Your task to perform on an android device: Open display settings Image 0: 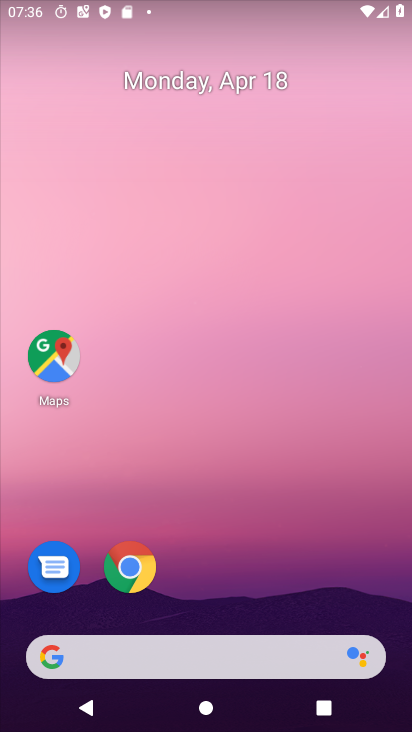
Step 0: drag from (354, 594) to (249, 139)
Your task to perform on an android device: Open display settings Image 1: 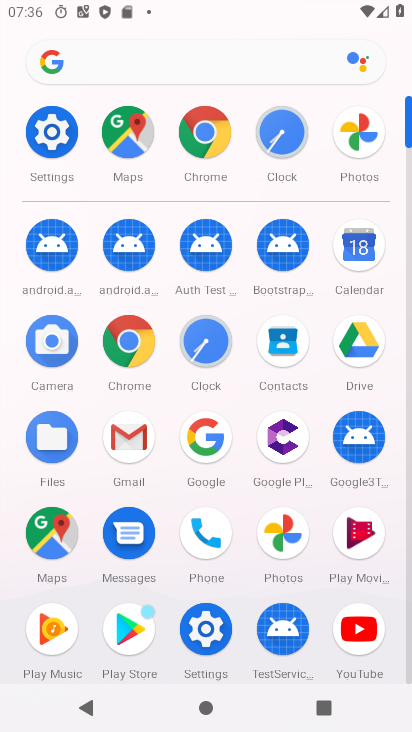
Step 1: click (48, 140)
Your task to perform on an android device: Open display settings Image 2: 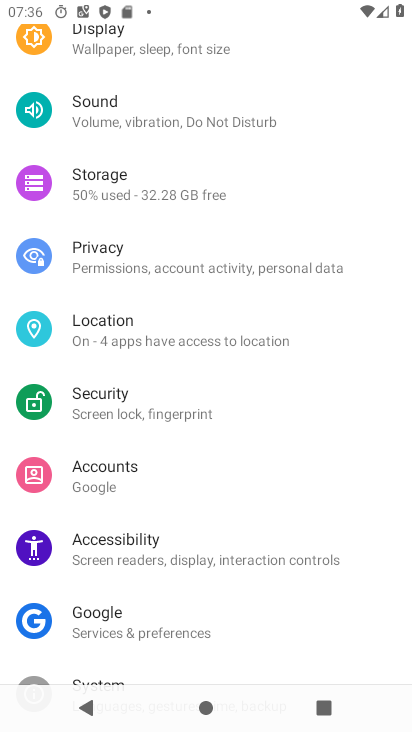
Step 2: click (143, 41)
Your task to perform on an android device: Open display settings Image 3: 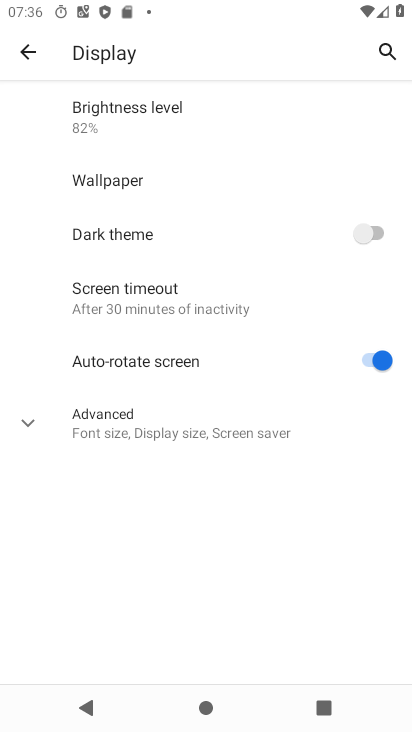
Step 3: task complete